Your task to perform on an android device: turn on improve location accuracy Image 0: 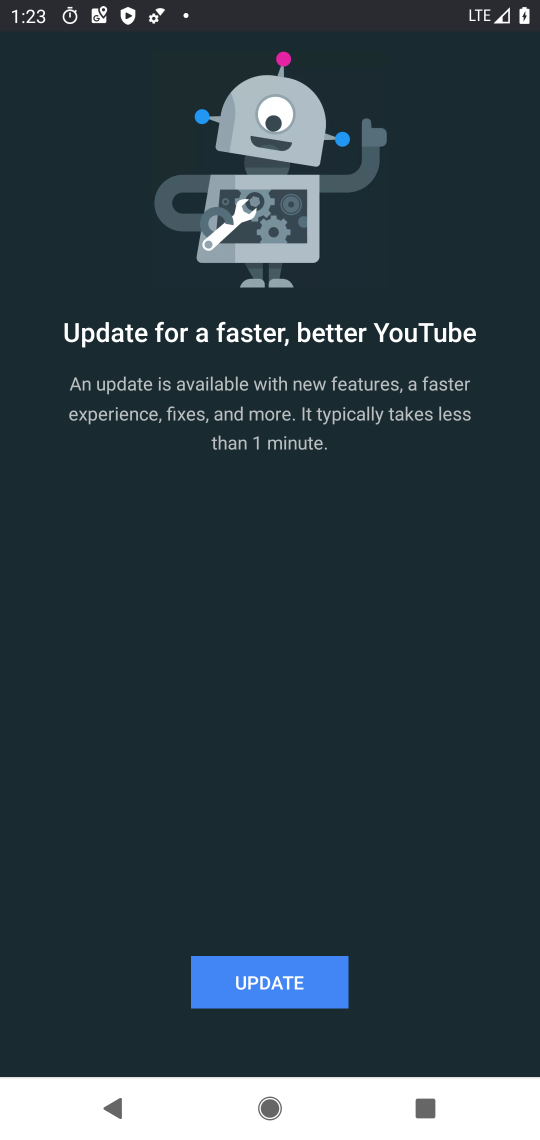
Step 0: press home button
Your task to perform on an android device: turn on improve location accuracy Image 1: 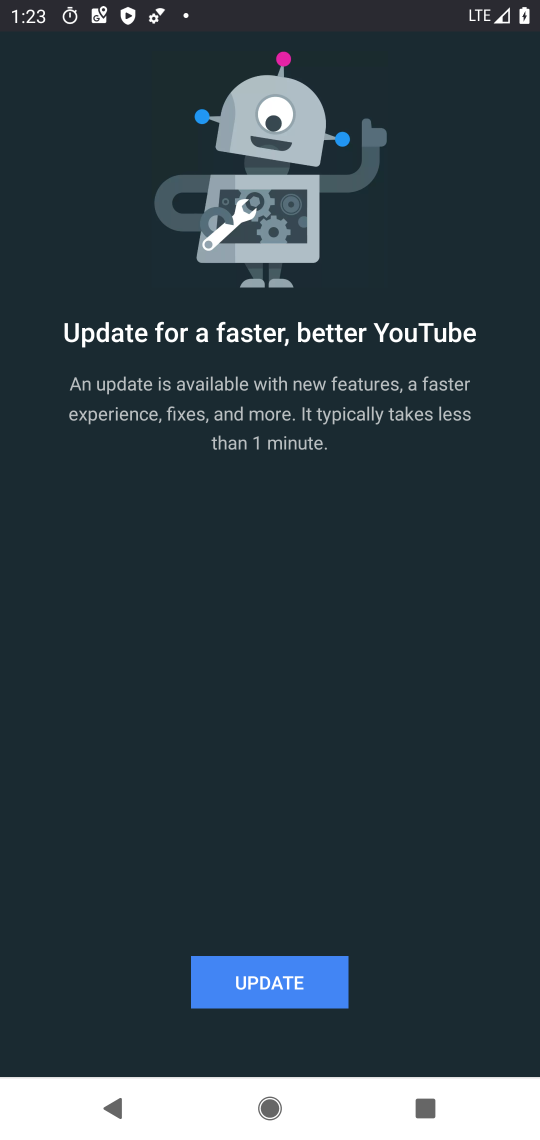
Step 1: press home button
Your task to perform on an android device: turn on improve location accuracy Image 2: 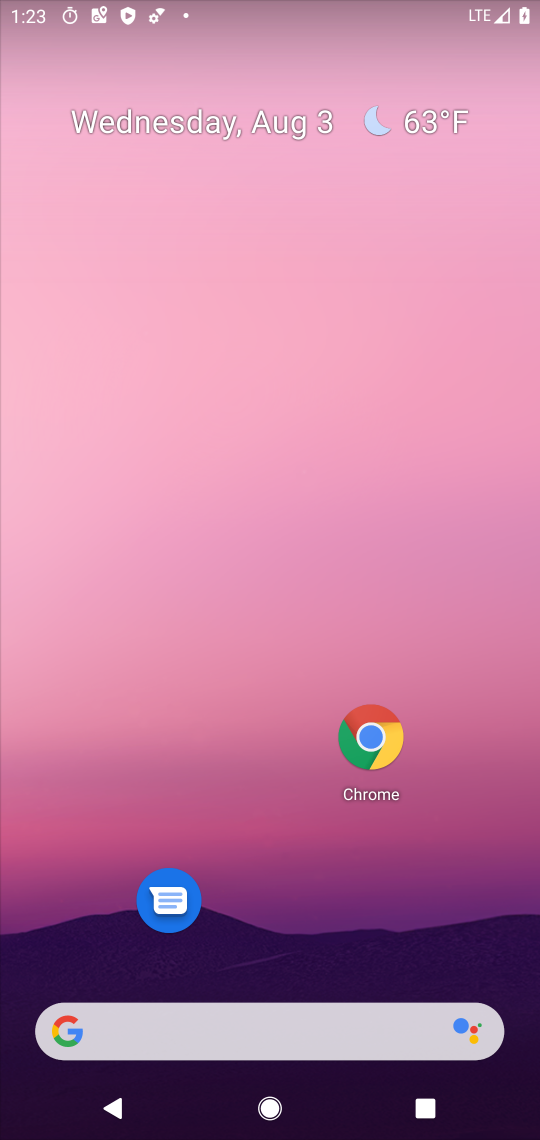
Step 2: drag from (308, 899) to (255, 158)
Your task to perform on an android device: turn on improve location accuracy Image 3: 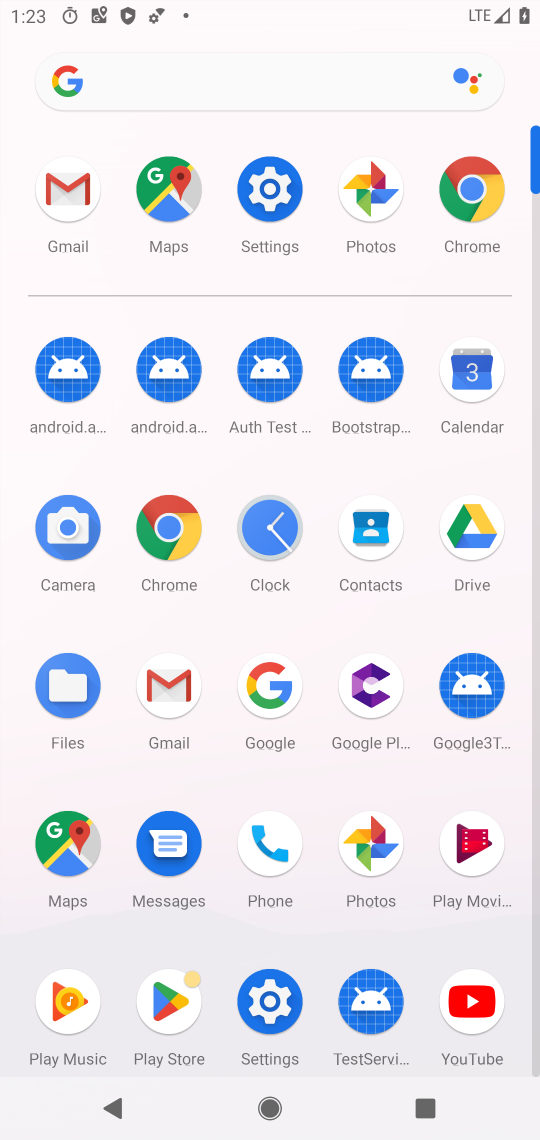
Step 3: click (274, 178)
Your task to perform on an android device: turn on improve location accuracy Image 4: 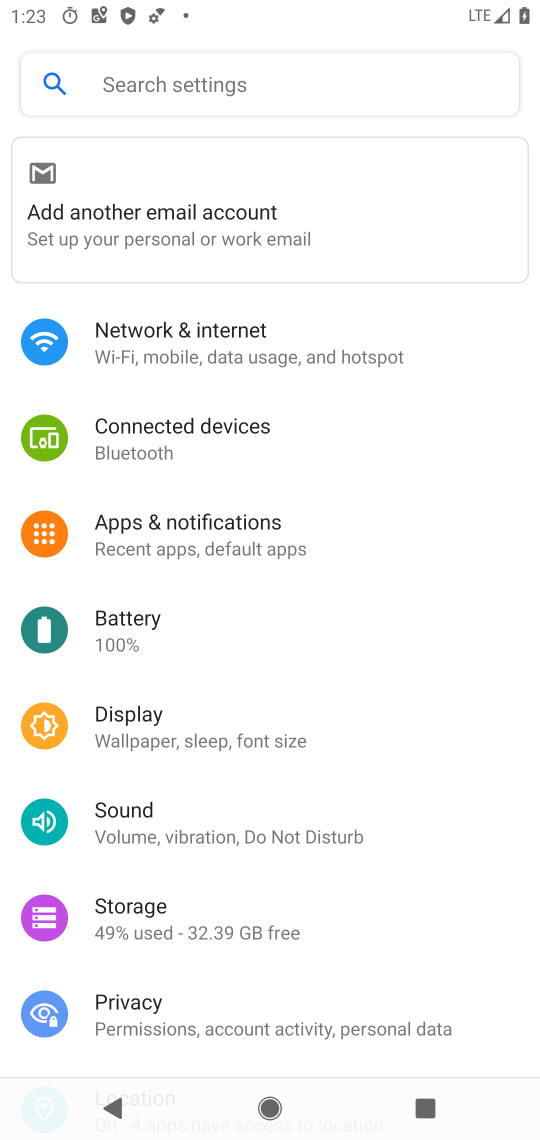
Step 4: drag from (256, 765) to (270, 238)
Your task to perform on an android device: turn on improve location accuracy Image 5: 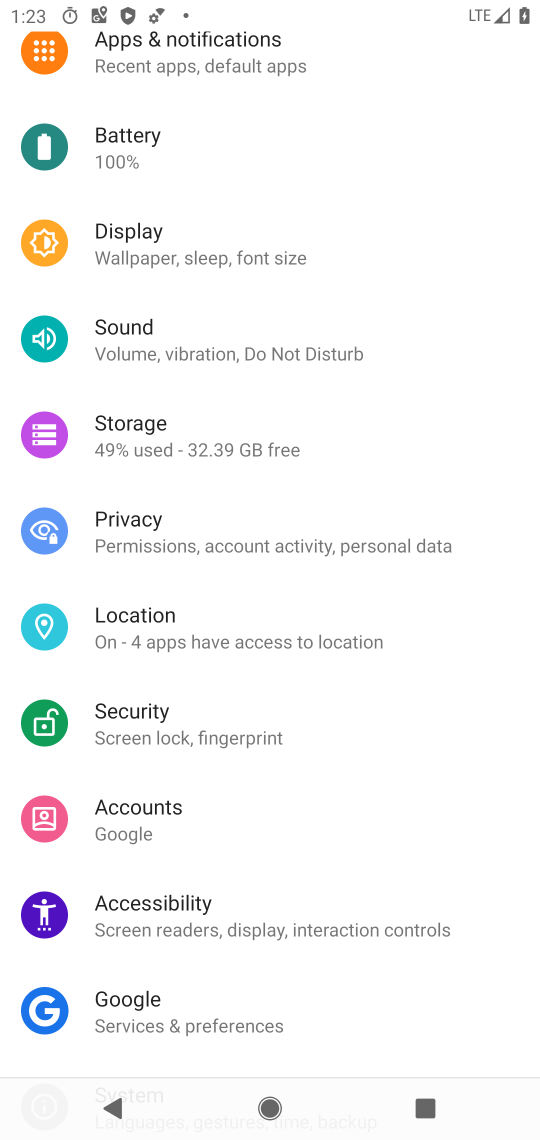
Step 5: click (169, 632)
Your task to perform on an android device: turn on improve location accuracy Image 6: 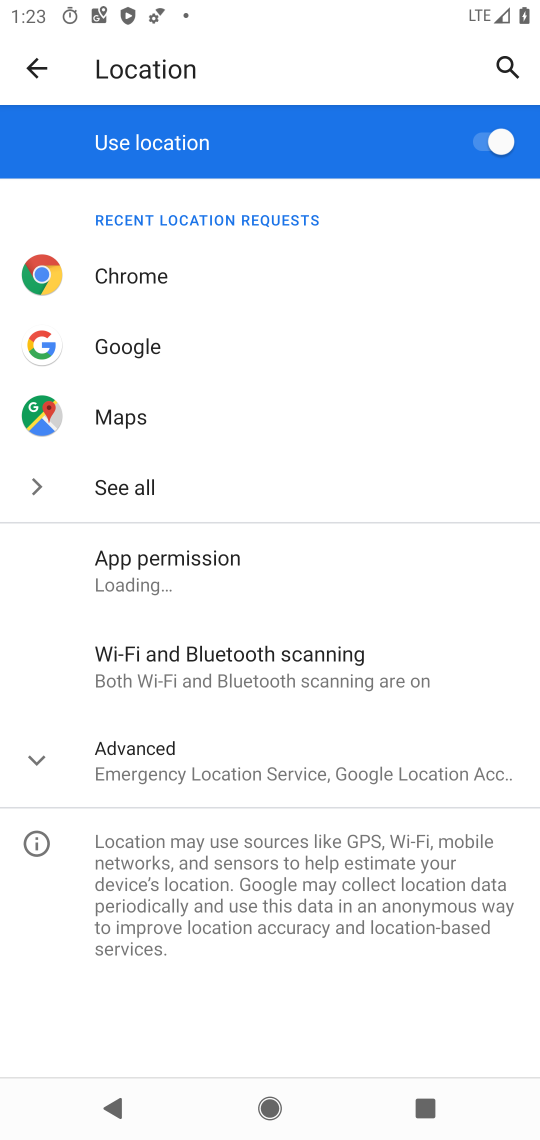
Step 6: click (138, 742)
Your task to perform on an android device: turn on improve location accuracy Image 7: 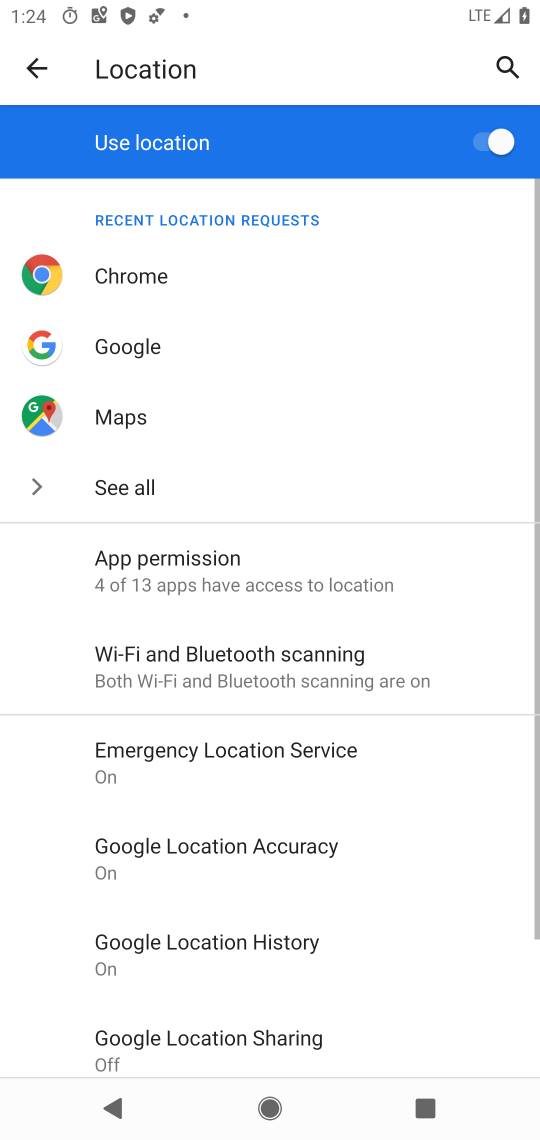
Step 7: click (307, 833)
Your task to perform on an android device: turn on improve location accuracy Image 8: 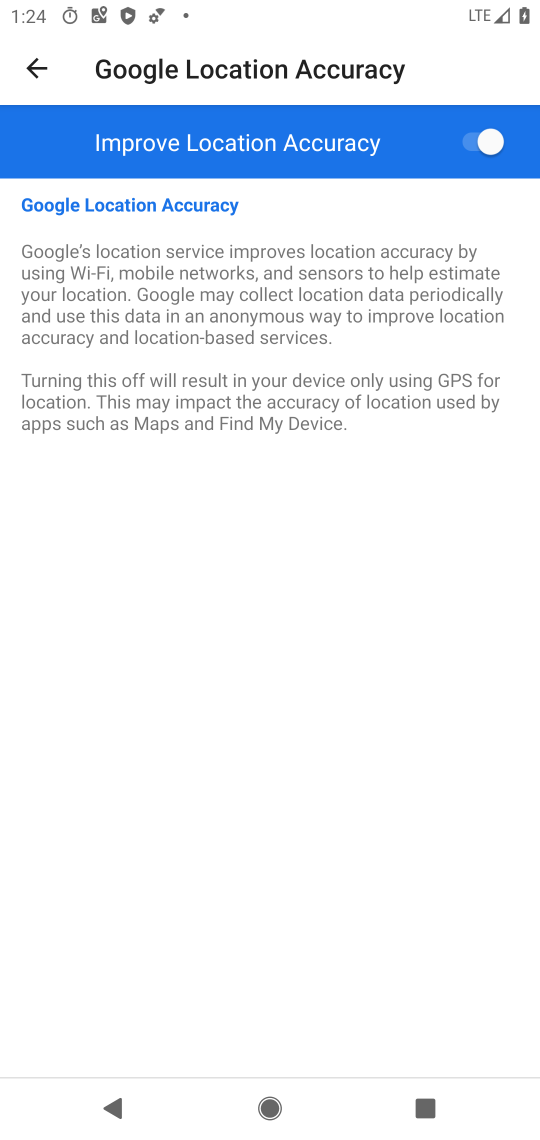
Step 8: task complete